Your task to perform on an android device: open the mobile data screen to see how much data has been used Image 0: 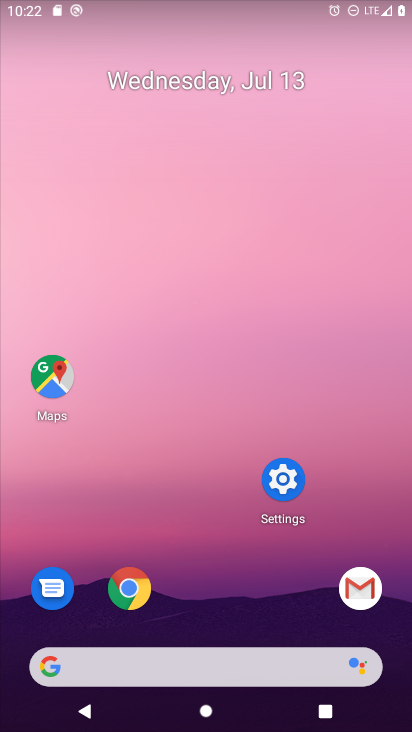
Step 0: press home button
Your task to perform on an android device: open the mobile data screen to see how much data has been used Image 1: 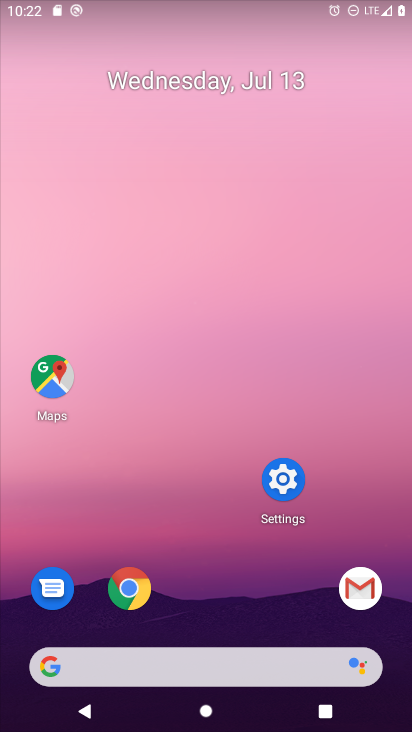
Step 1: click (282, 482)
Your task to perform on an android device: open the mobile data screen to see how much data has been used Image 2: 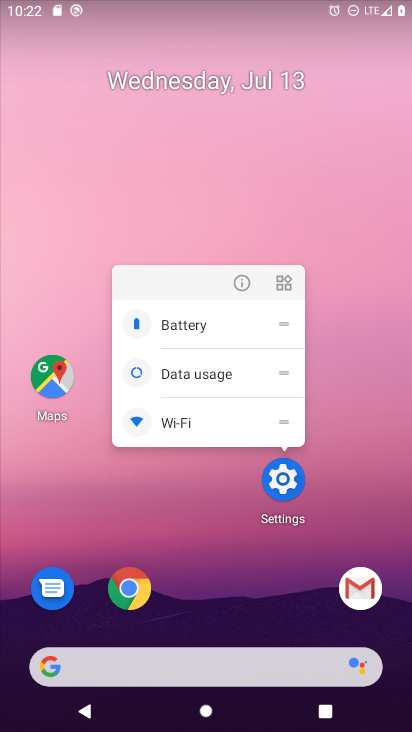
Step 2: click (284, 482)
Your task to perform on an android device: open the mobile data screen to see how much data has been used Image 3: 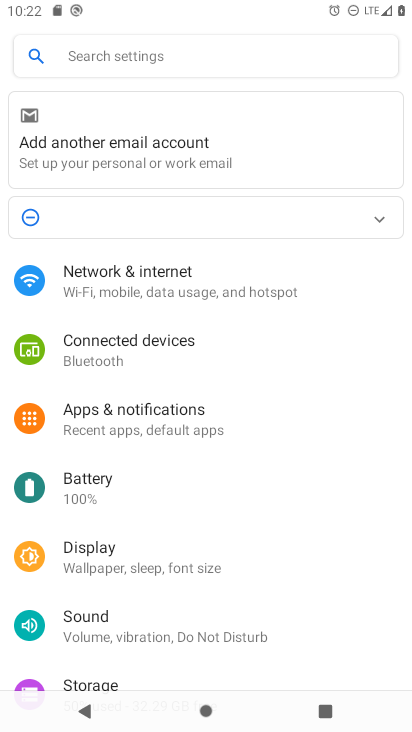
Step 3: click (112, 53)
Your task to perform on an android device: open the mobile data screen to see how much data has been used Image 4: 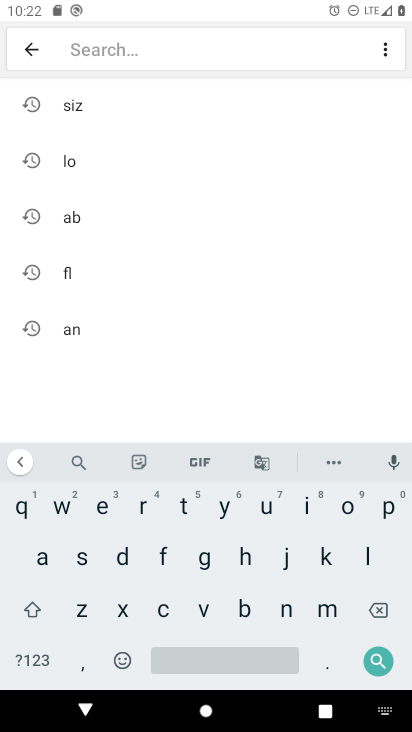
Step 4: click (118, 555)
Your task to perform on an android device: open the mobile data screen to see how much data has been used Image 5: 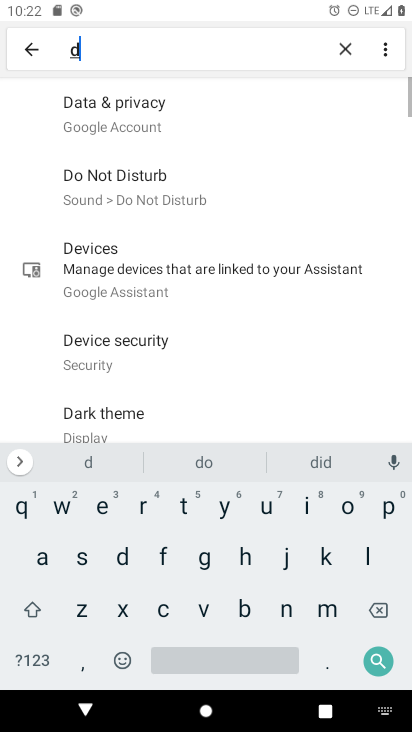
Step 5: click (38, 563)
Your task to perform on an android device: open the mobile data screen to see how much data has been used Image 6: 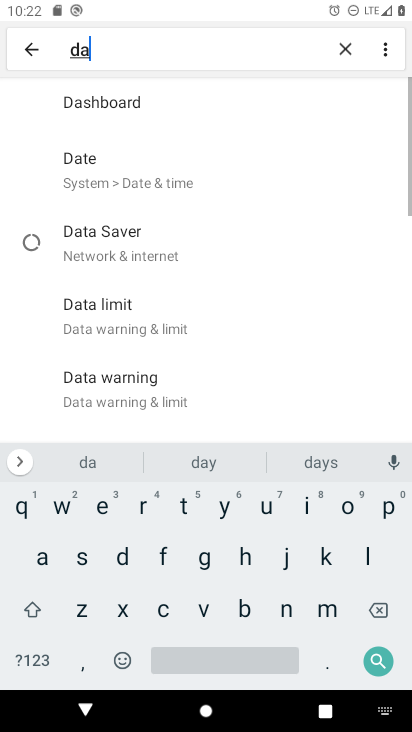
Step 6: click (184, 509)
Your task to perform on an android device: open the mobile data screen to see how much data has been used Image 7: 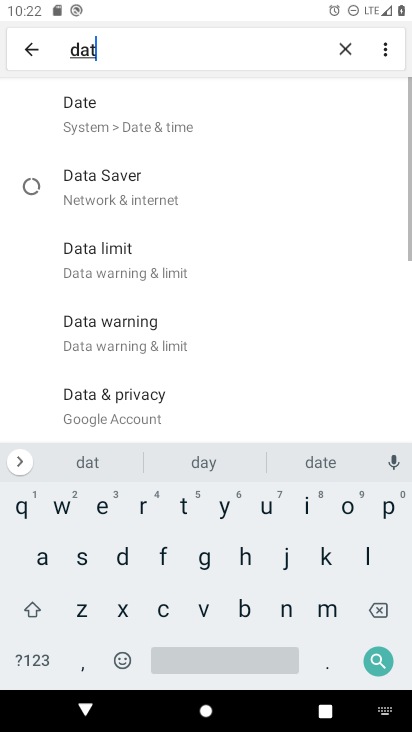
Step 7: click (33, 561)
Your task to perform on an android device: open the mobile data screen to see how much data has been used Image 8: 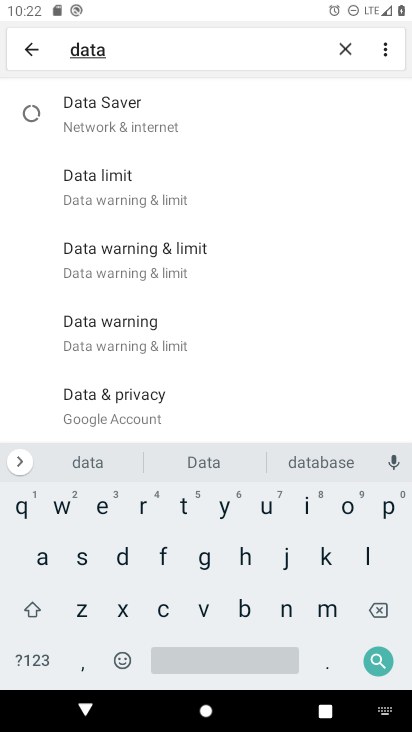
Step 8: click (215, 667)
Your task to perform on an android device: open the mobile data screen to see how much data has been used Image 9: 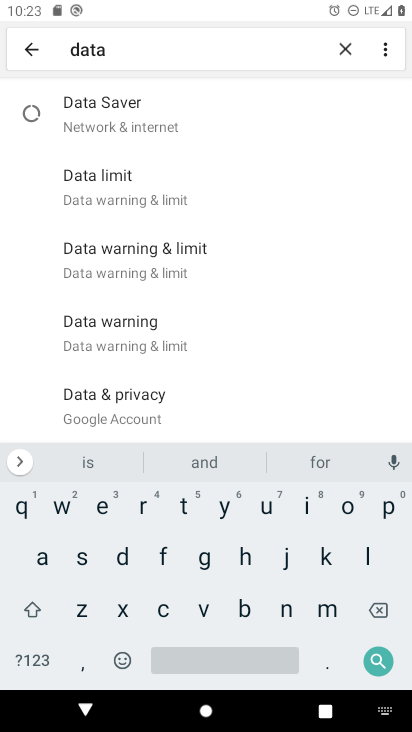
Step 9: click (258, 512)
Your task to perform on an android device: open the mobile data screen to see how much data has been used Image 10: 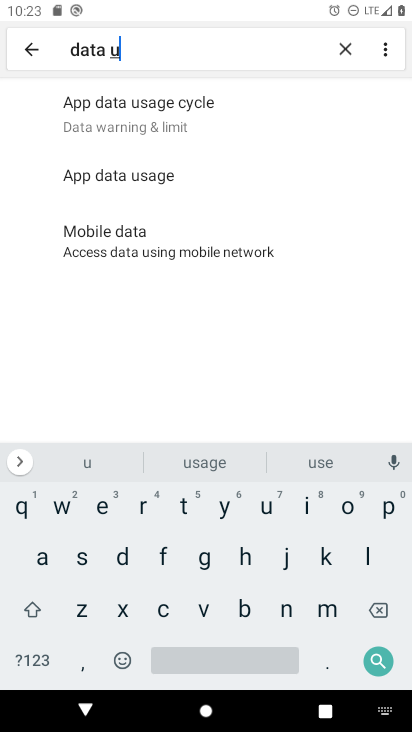
Step 10: click (121, 177)
Your task to perform on an android device: open the mobile data screen to see how much data has been used Image 11: 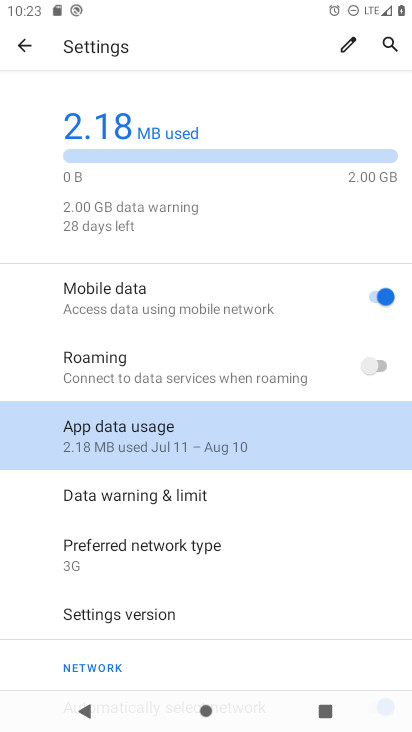
Step 11: click (135, 446)
Your task to perform on an android device: open the mobile data screen to see how much data has been used Image 12: 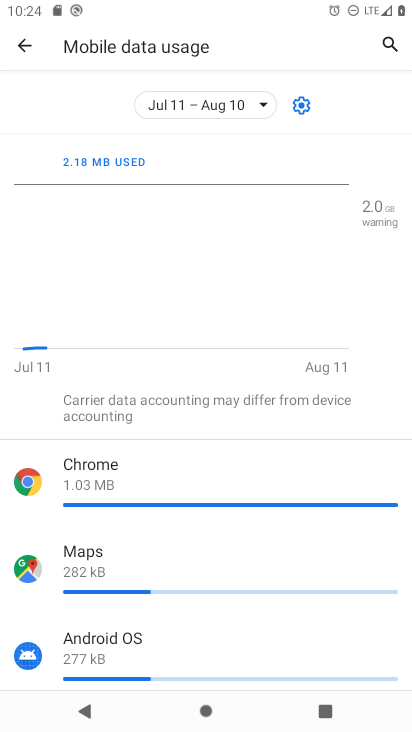
Step 12: task complete